Your task to perform on an android device: Clear the shopping cart on costco.com. Add macbook air to the cart on costco.com Image 0: 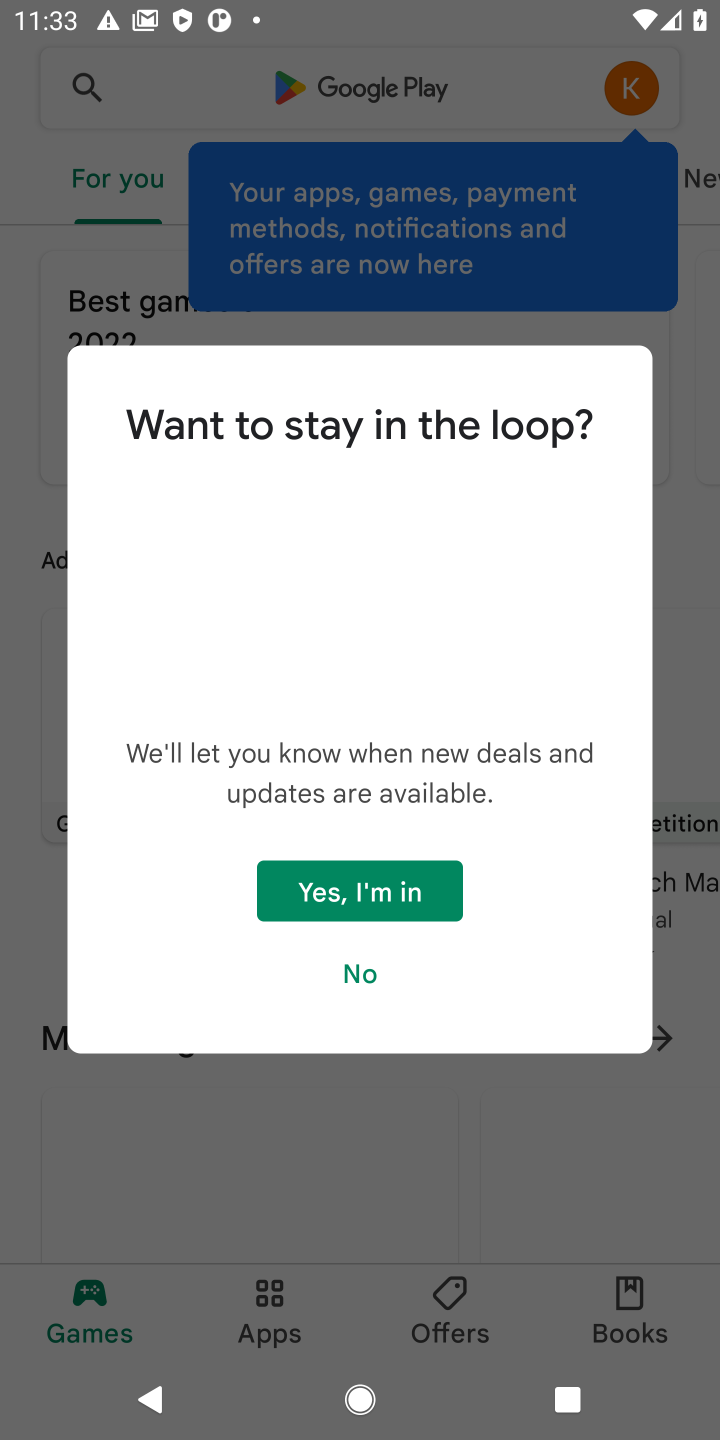
Step 0: press home button
Your task to perform on an android device: Clear the shopping cart on costco.com. Add macbook air to the cart on costco.com Image 1: 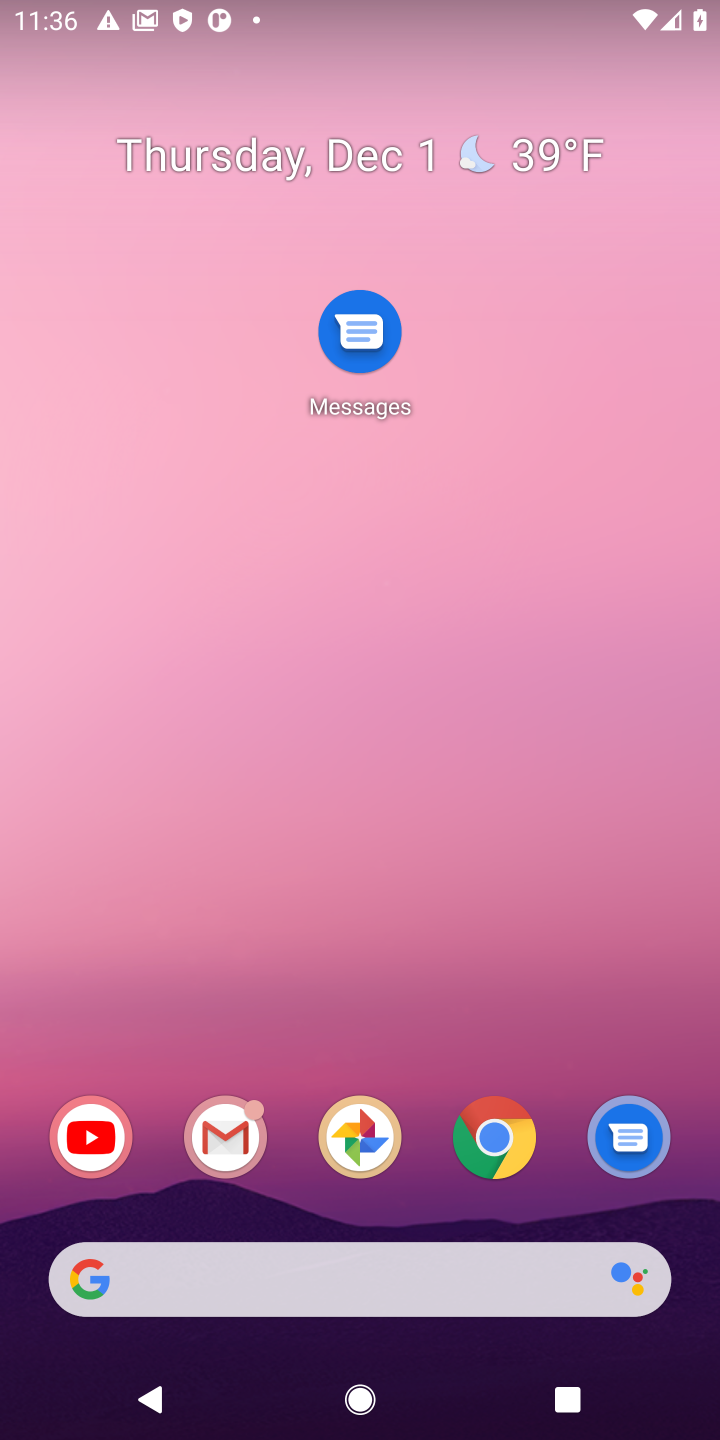
Step 1: drag from (289, 1237) to (451, 310)
Your task to perform on an android device: Clear the shopping cart on costco.com. Add macbook air to the cart on costco.com Image 2: 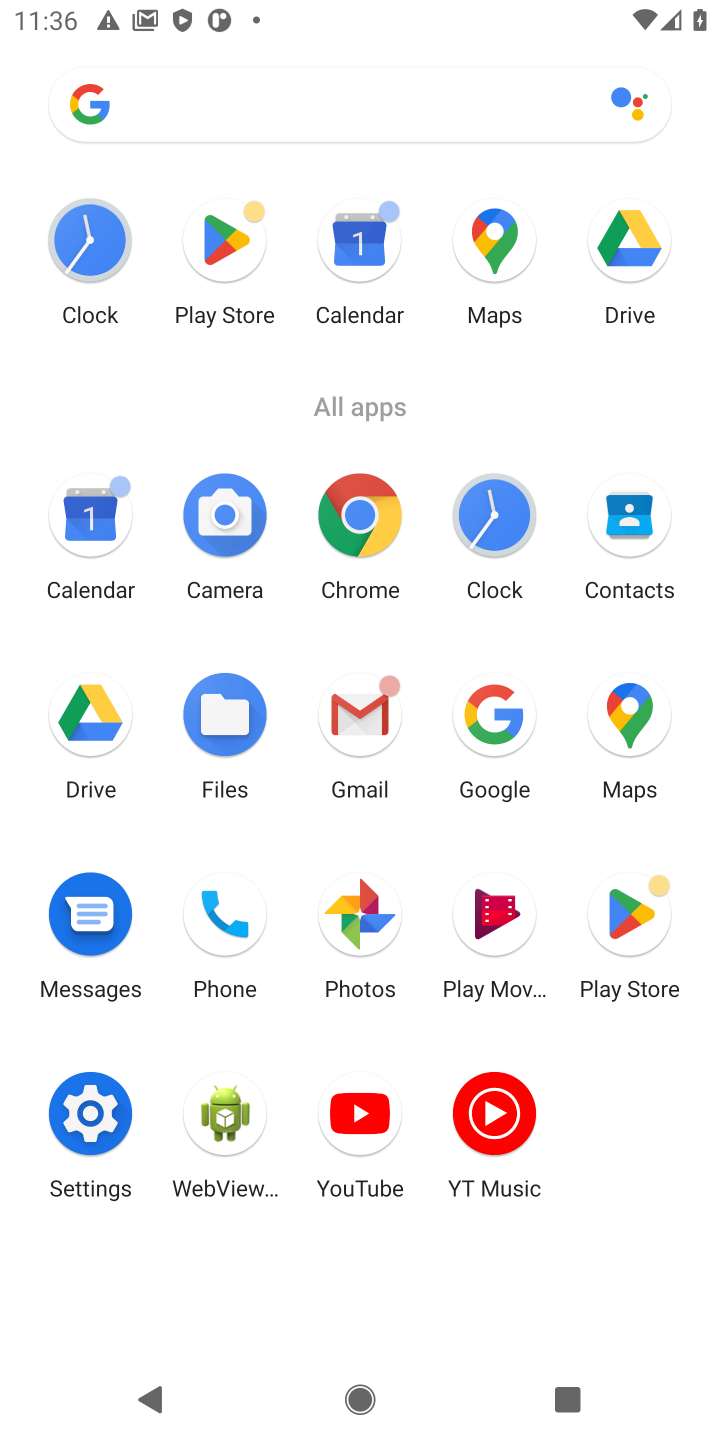
Step 2: click (487, 699)
Your task to perform on an android device: Clear the shopping cart on costco.com. Add macbook air to the cart on costco.com Image 3: 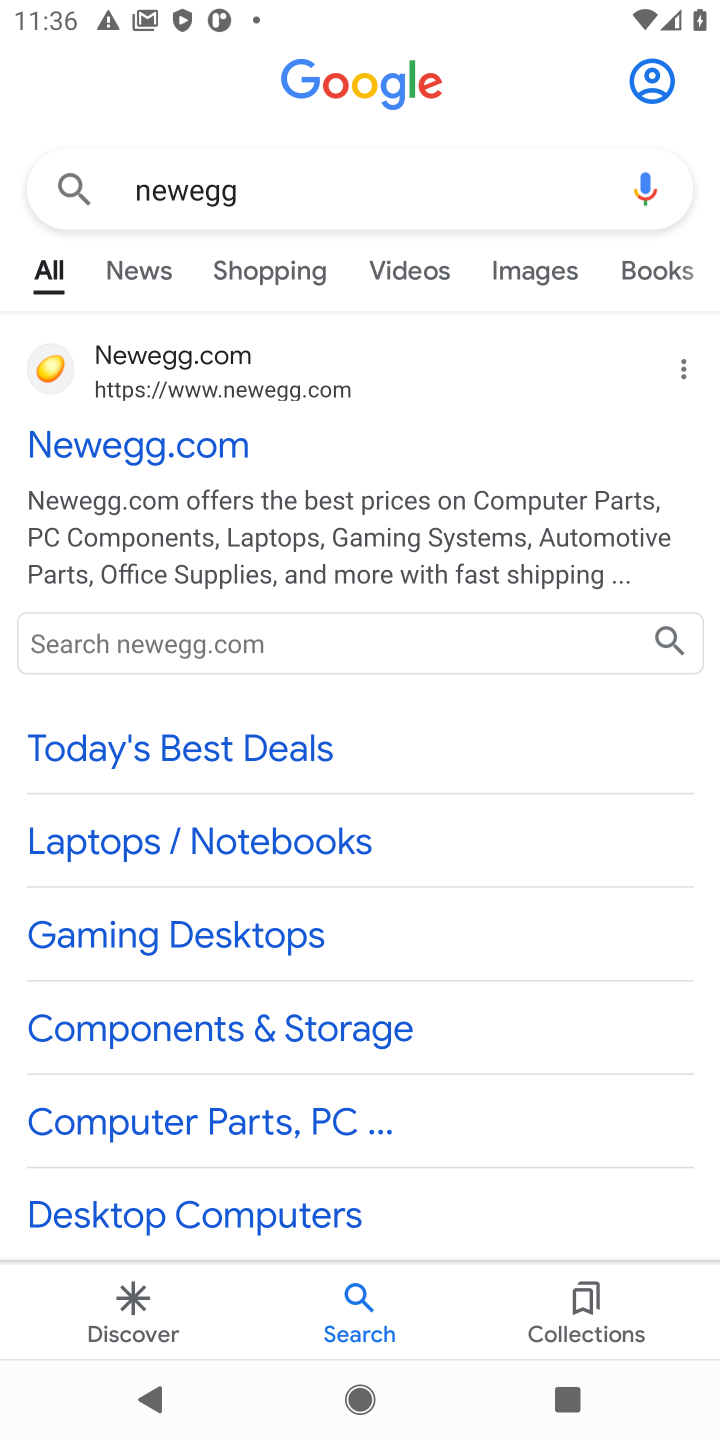
Step 3: click (188, 190)
Your task to perform on an android device: Clear the shopping cart on costco.com. Add macbook air to the cart on costco.com Image 4: 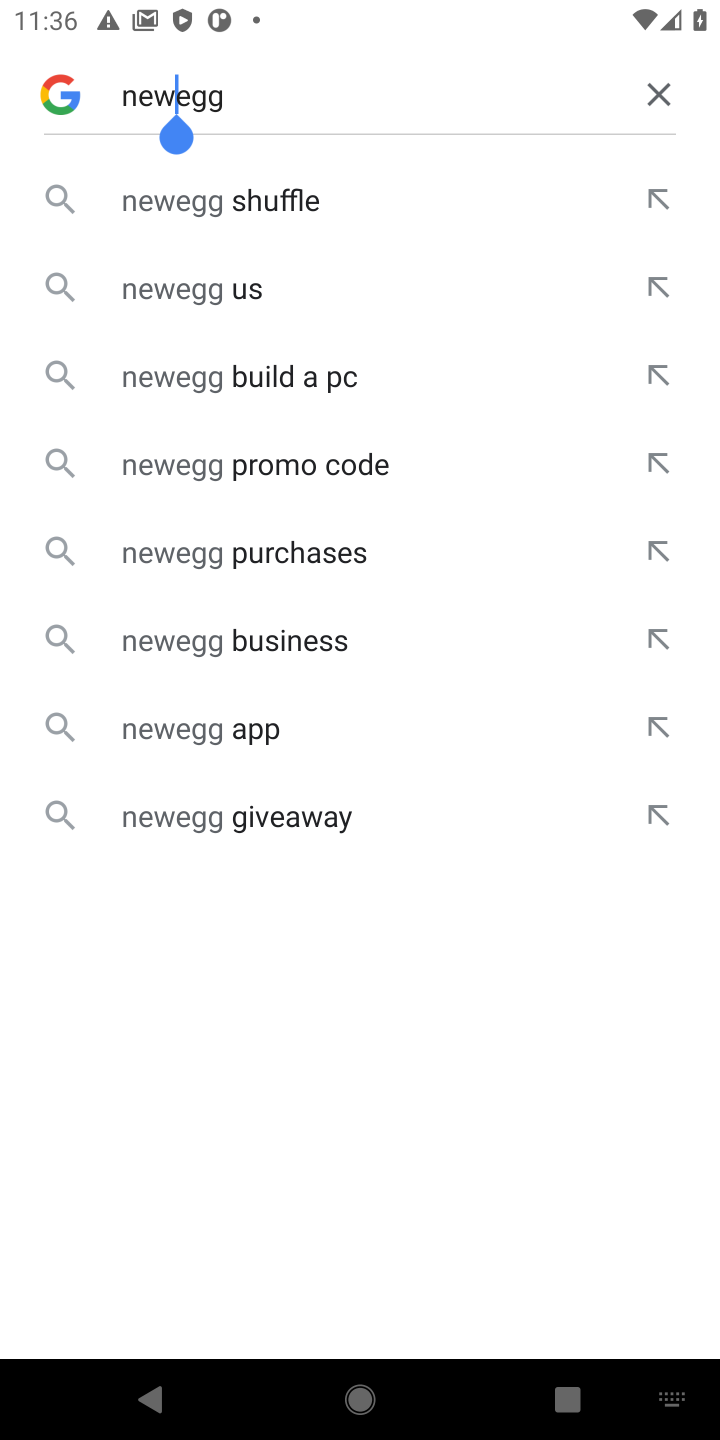
Step 4: click (666, 87)
Your task to perform on an android device: Clear the shopping cart on costco.com. Add macbook air to the cart on costco.com Image 5: 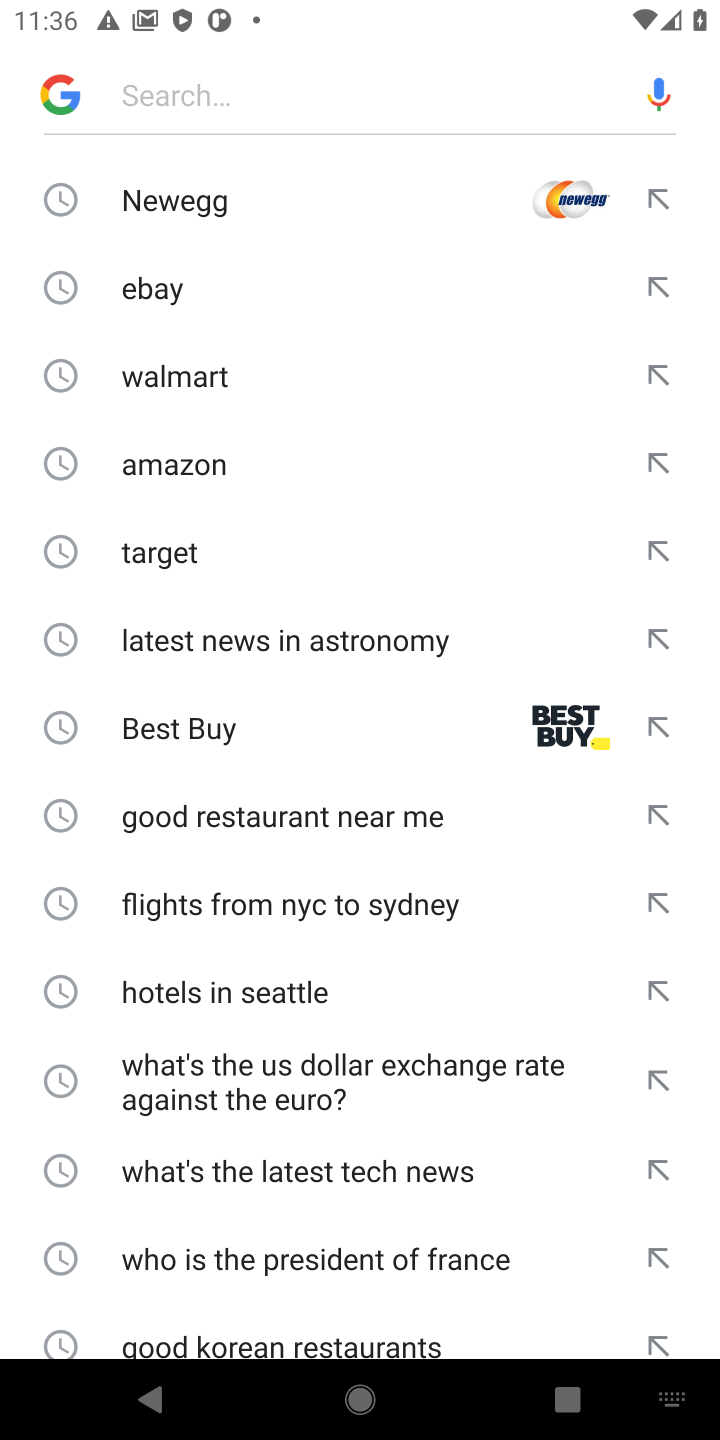
Step 5: drag from (240, 1182) to (242, 390)
Your task to perform on an android device: Clear the shopping cart on costco.com. Add macbook air to the cart on costco.com Image 6: 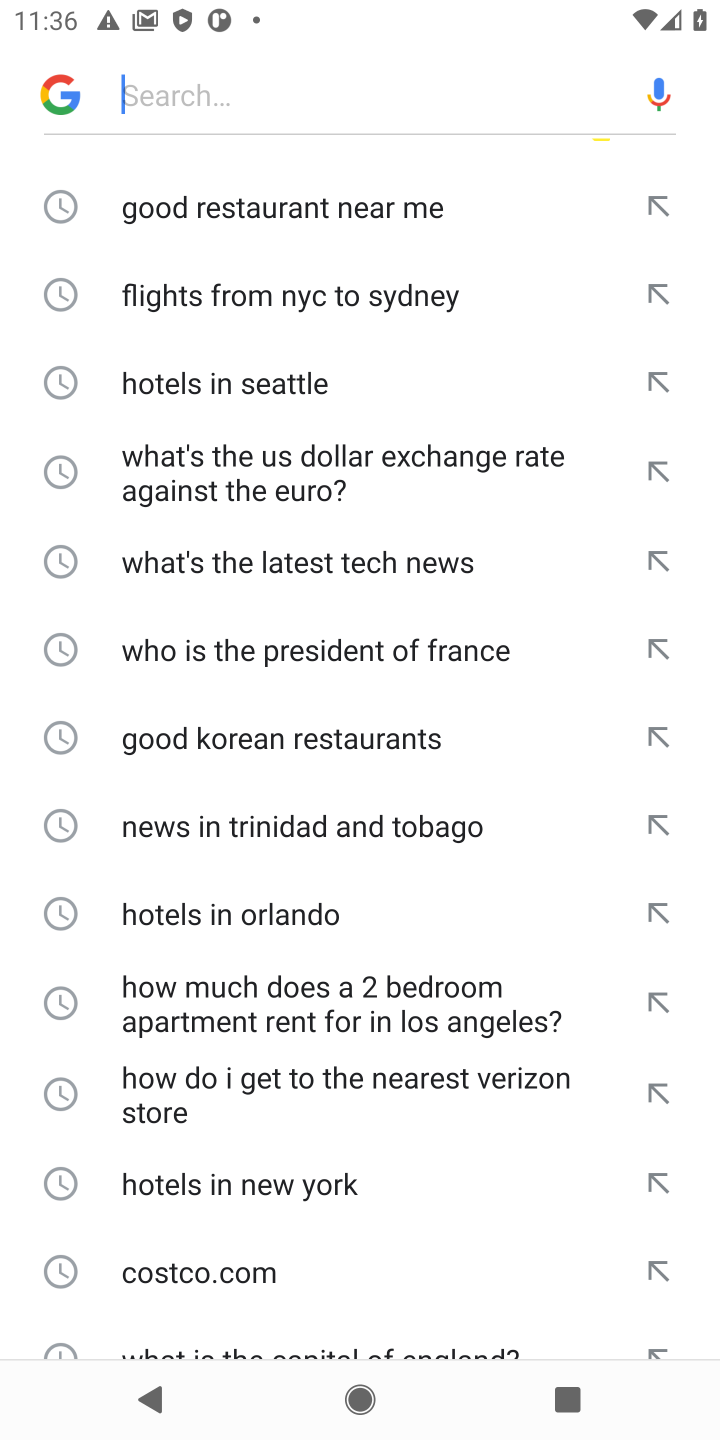
Step 6: click (178, 1294)
Your task to perform on an android device: Clear the shopping cart on costco.com. Add macbook air to the cart on costco.com Image 7: 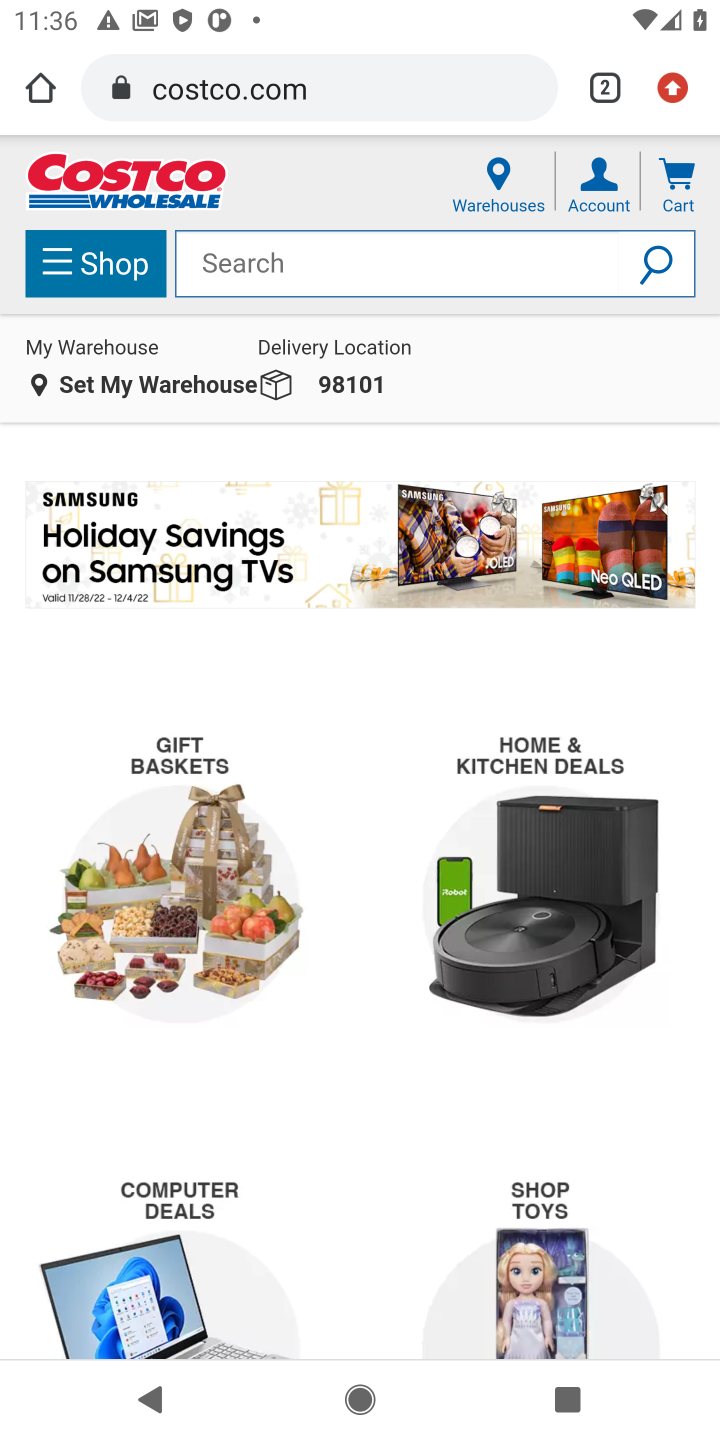
Step 7: click (295, 280)
Your task to perform on an android device: Clear the shopping cart on costco.com. Add macbook air to the cart on costco.com Image 8: 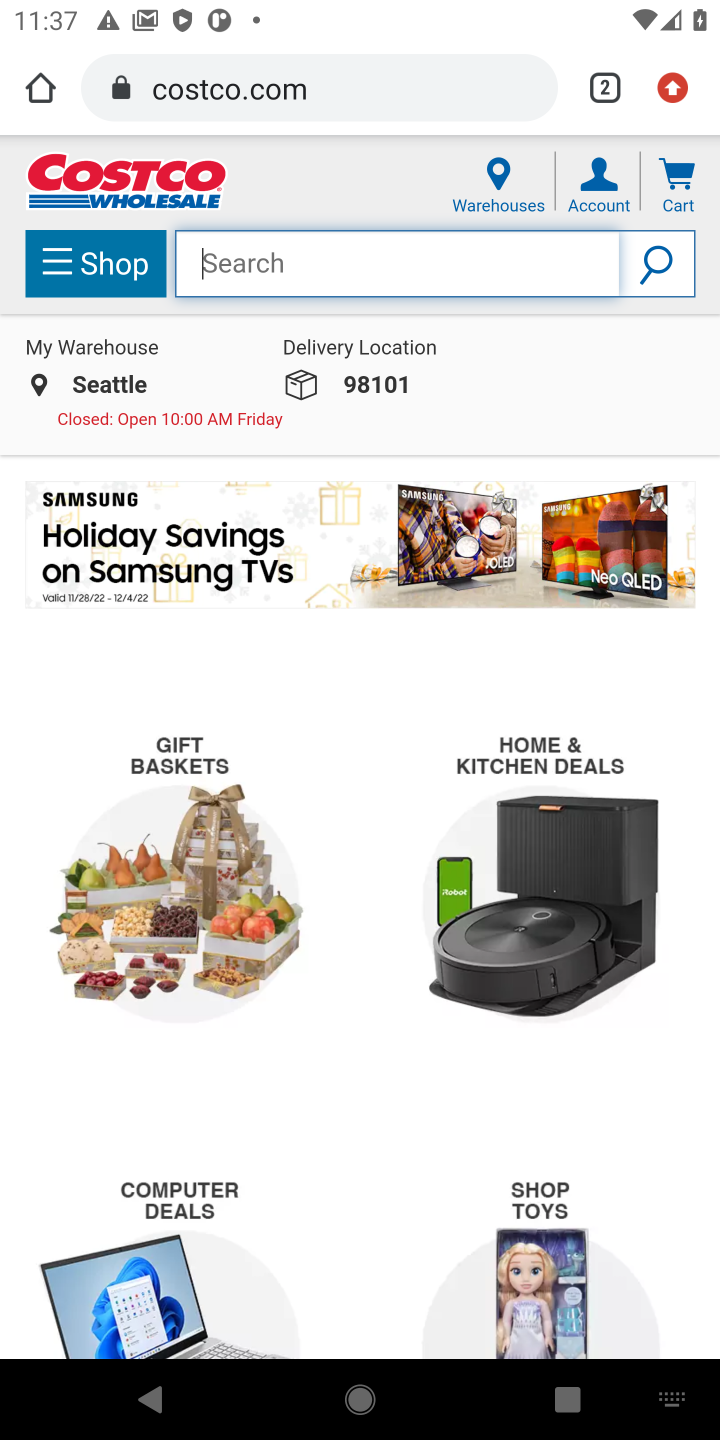
Step 8: type "macbook air"
Your task to perform on an android device: Clear the shopping cart on costco.com. Add macbook air to the cart on costco.com Image 9: 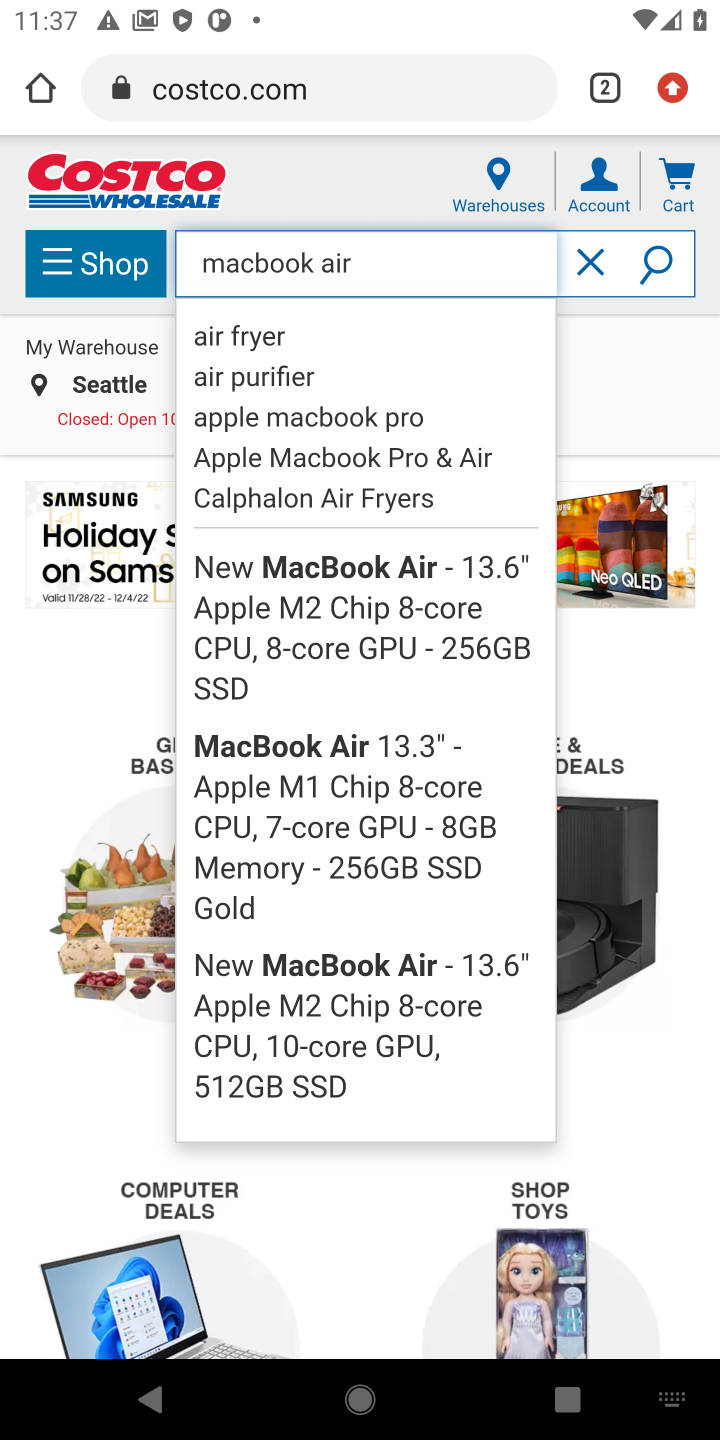
Step 9: click (656, 264)
Your task to perform on an android device: Clear the shopping cart on costco.com. Add macbook air to the cart on costco.com Image 10: 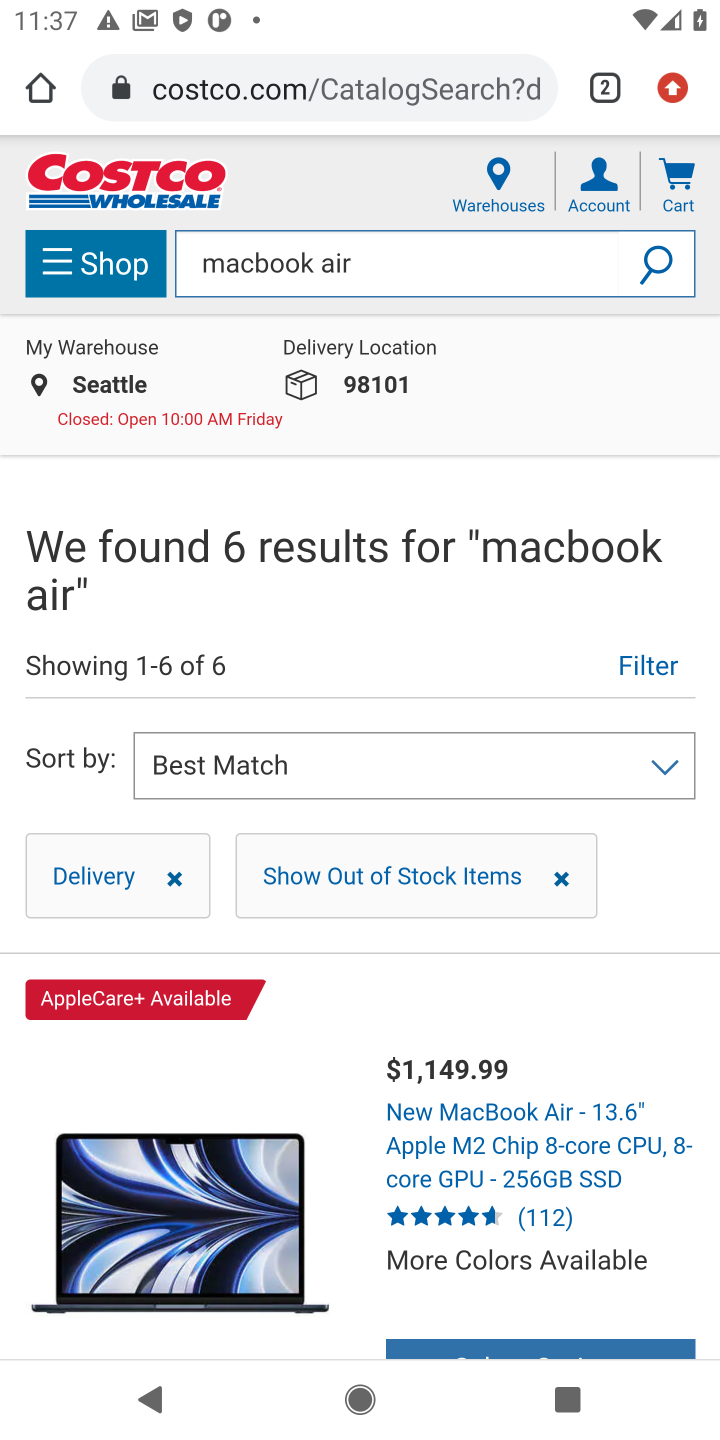
Step 10: click (445, 1144)
Your task to perform on an android device: Clear the shopping cart on costco.com. Add macbook air to the cart on costco.com Image 11: 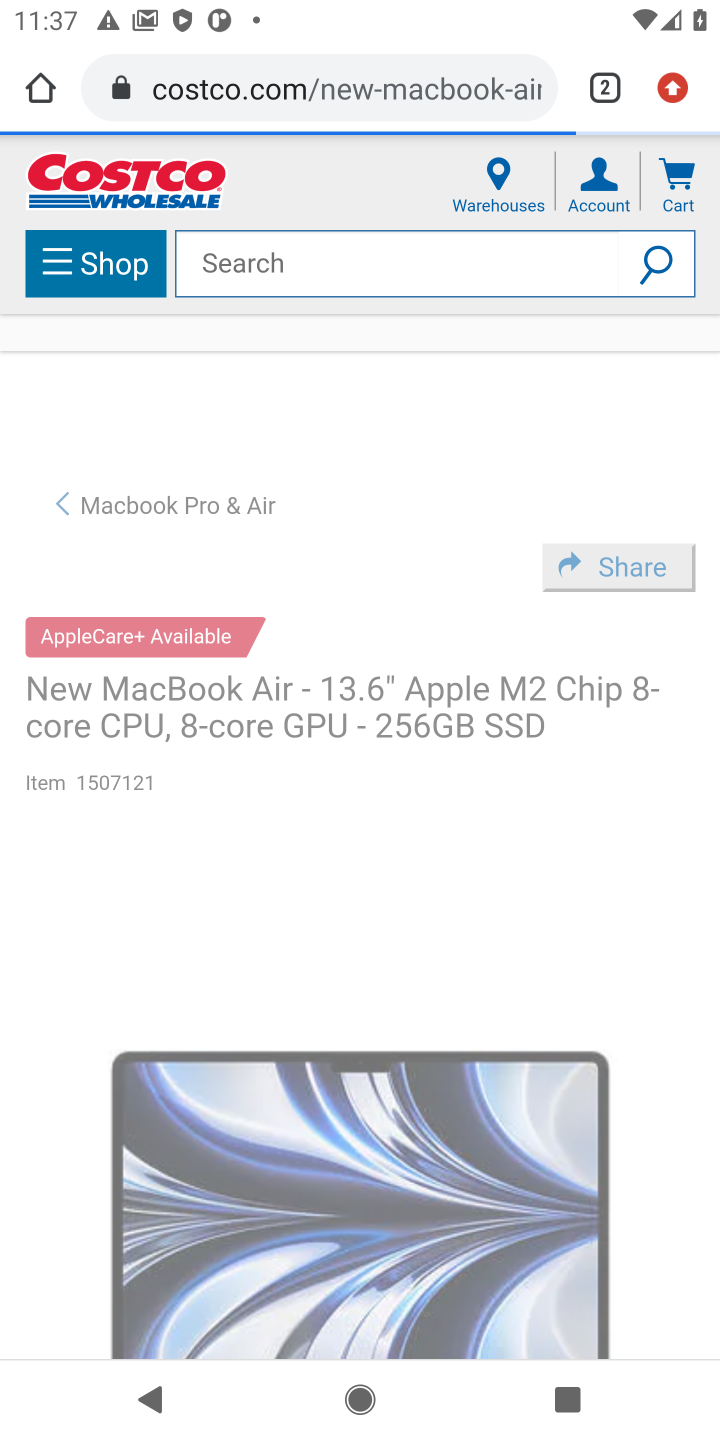
Step 11: drag from (455, 1277) to (455, 502)
Your task to perform on an android device: Clear the shopping cart on costco.com. Add macbook air to the cart on costco.com Image 12: 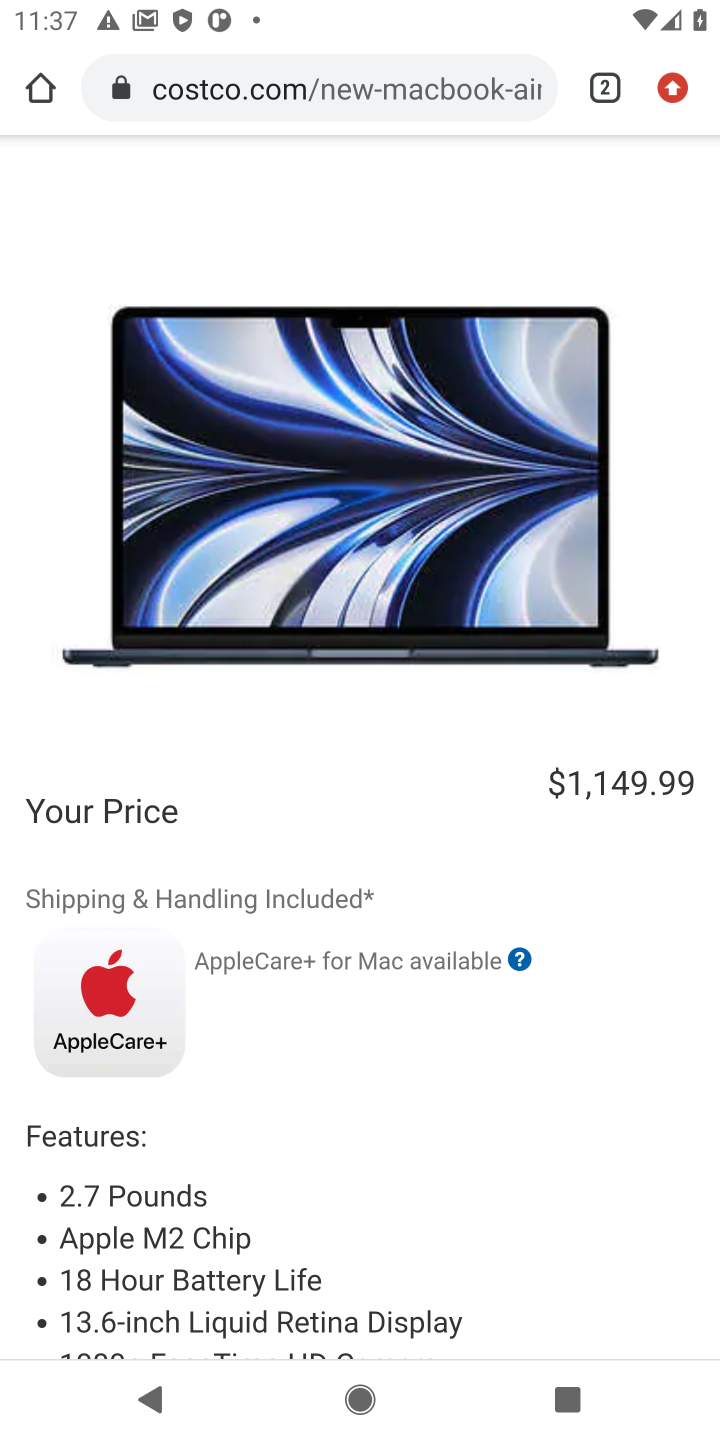
Step 12: drag from (442, 1181) to (397, 555)
Your task to perform on an android device: Clear the shopping cart on costco.com. Add macbook air to the cart on costco.com Image 13: 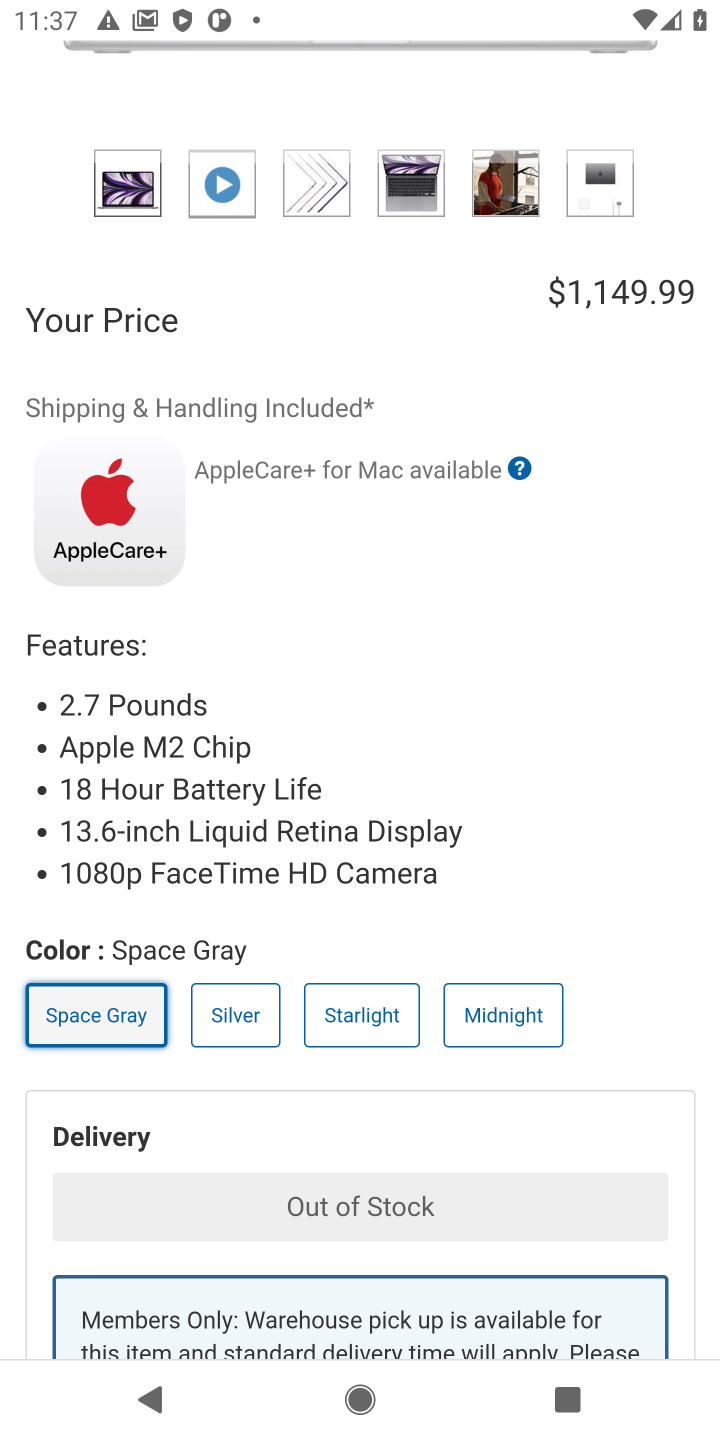
Step 13: drag from (428, 1192) to (347, 558)
Your task to perform on an android device: Clear the shopping cart on costco.com. Add macbook air to the cart on costco.com Image 14: 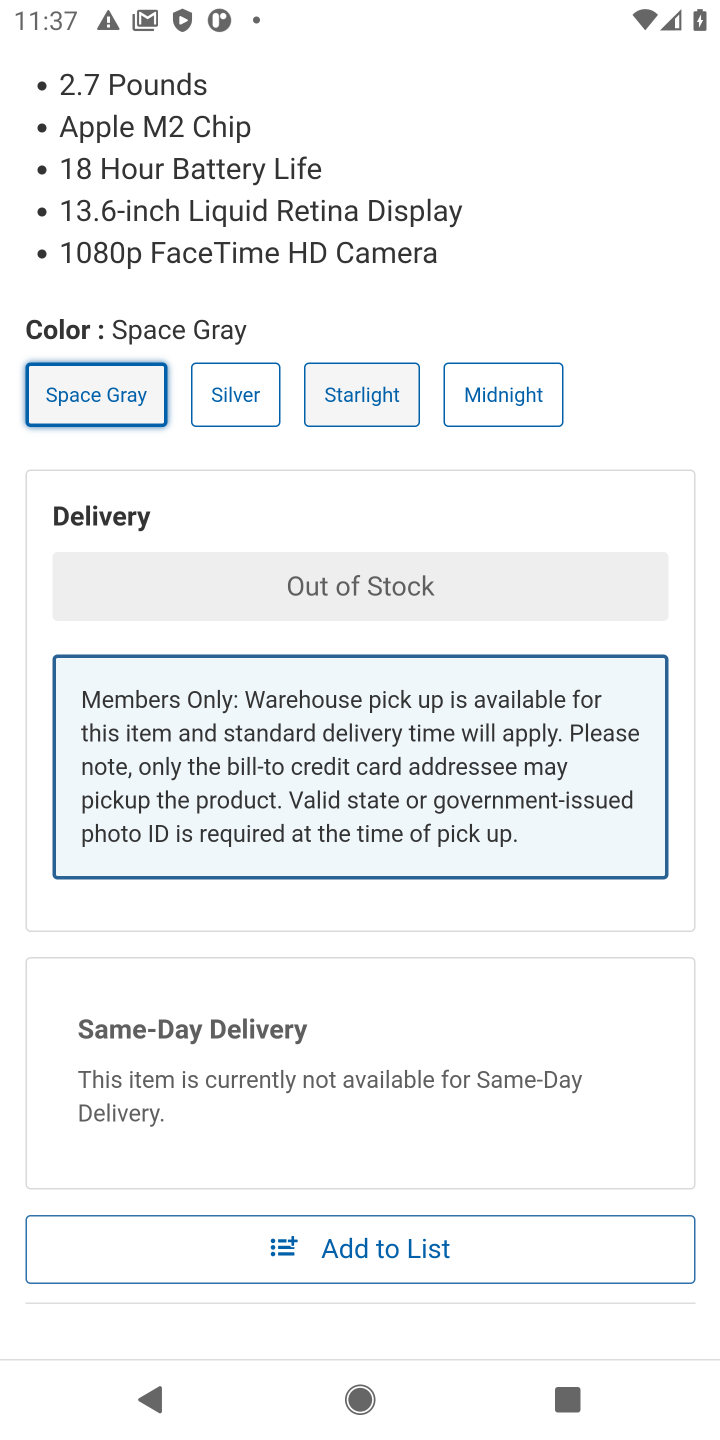
Step 14: click (357, 1249)
Your task to perform on an android device: Clear the shopping cart on costco.com. Add macbook air to the cart on costco.com Image 15: 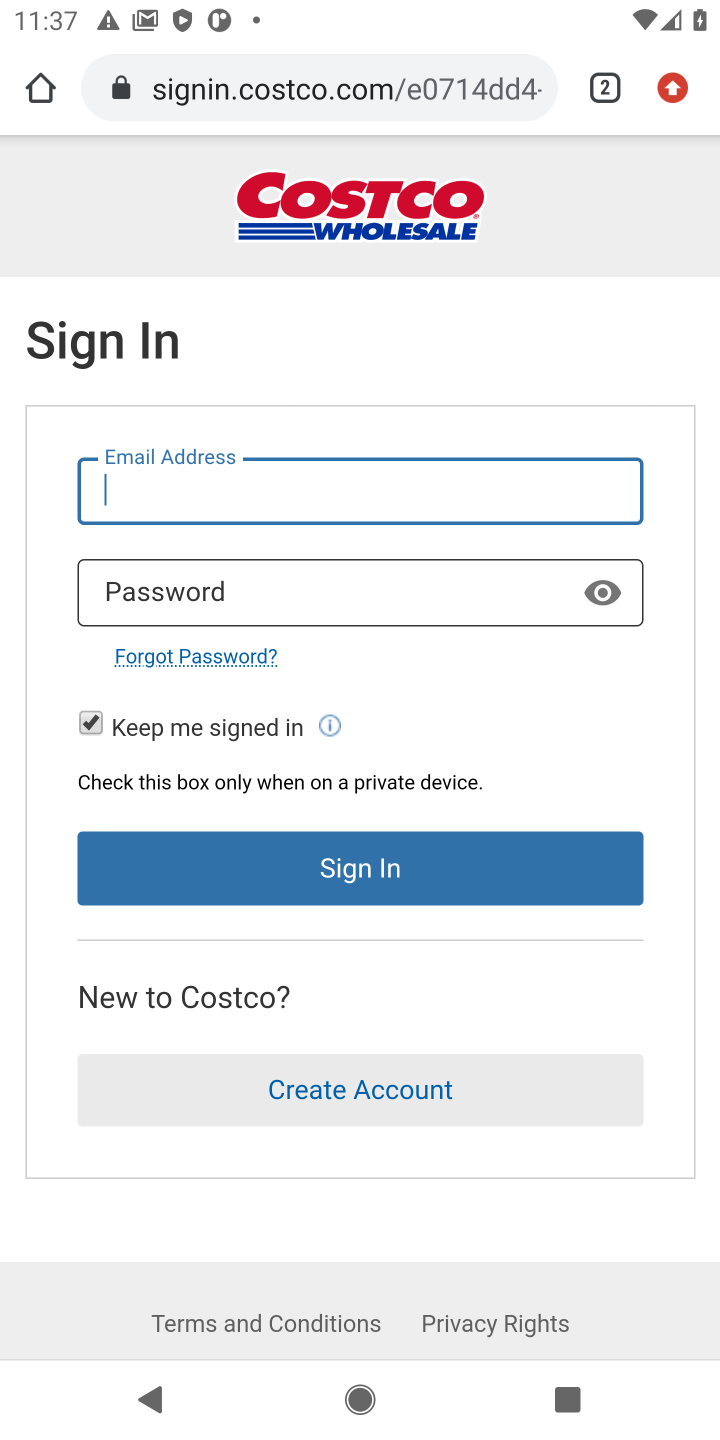
Step 15: task complete